Your task to perform on an android device: change your default location settings in chrome Image 0: 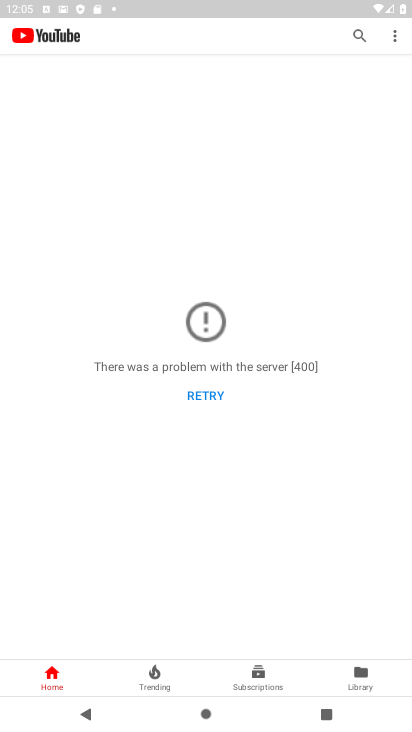
Step 0: press home button
Your task to perform on an android device: change your default location settings in chrome Image 1: 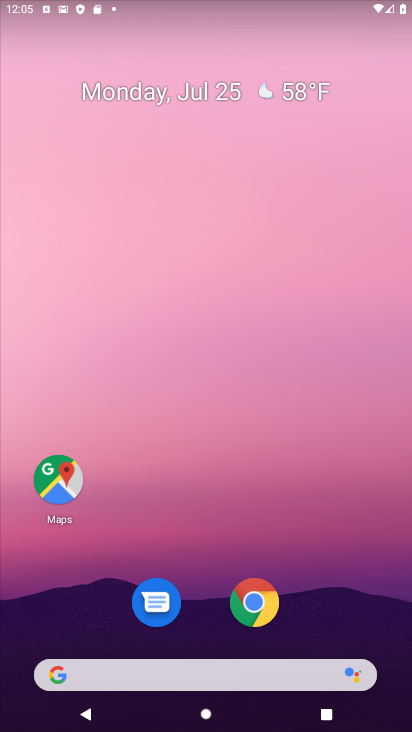
Step 1: click (265, 600)
Your task to perform on an android device: change your default location settings in chrome Image 2: 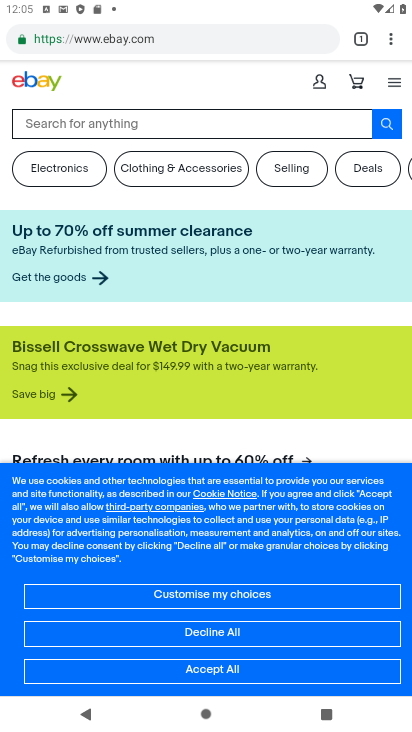
Step 2: click (395, 35)
Your task to perform on an android device: change your default location settings in chrome Image 3: 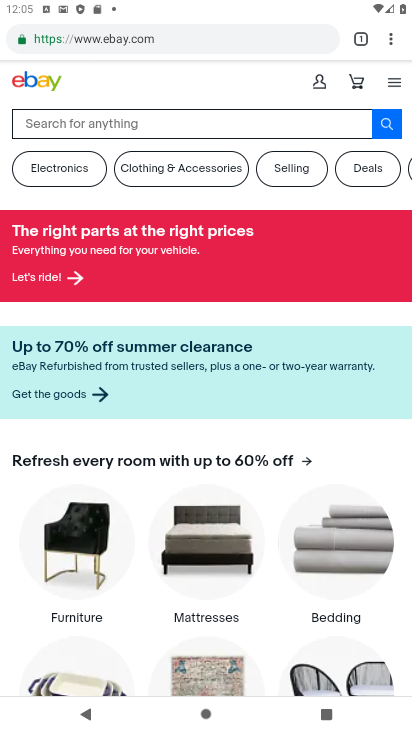
Step 3: click (391, 33)
Your task to perform on an android device: change your default location settings in chrome Image 4: 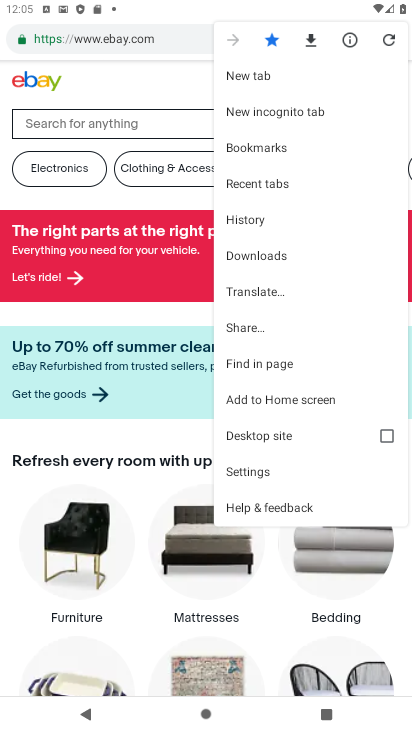
Step 4: click (273, 467)
Your task to perform on an android device: change your default location settings in chrome Image 5: 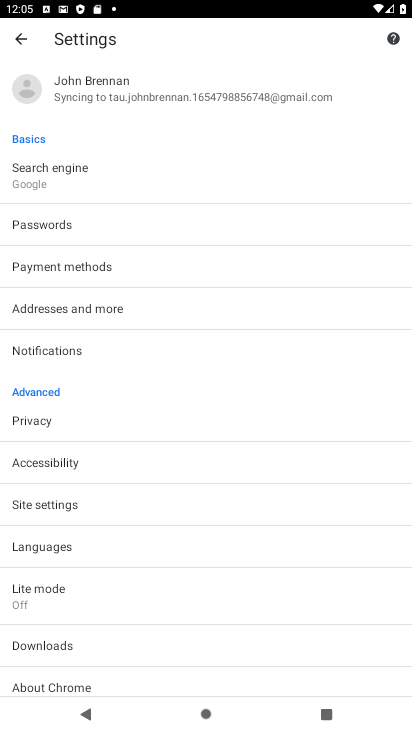
Step 5: drag from (148, 552) to (193, 318)
Your task to perform on an android device: change your default location settings in chrome Image 6: 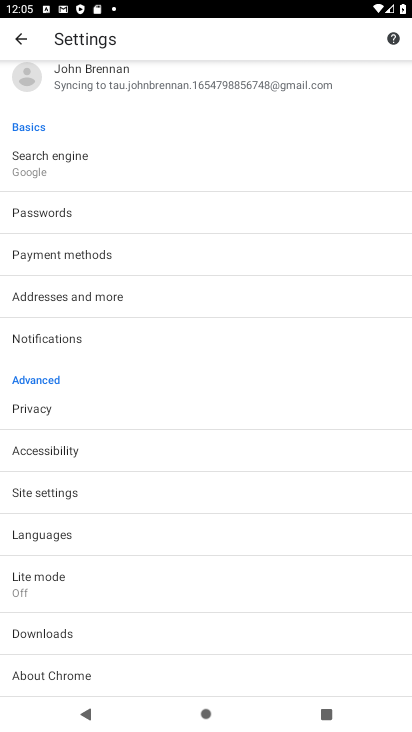
Step 6: click (80, 488)
Your task to perform on an android device: change your default location settings in chrome Image 7: 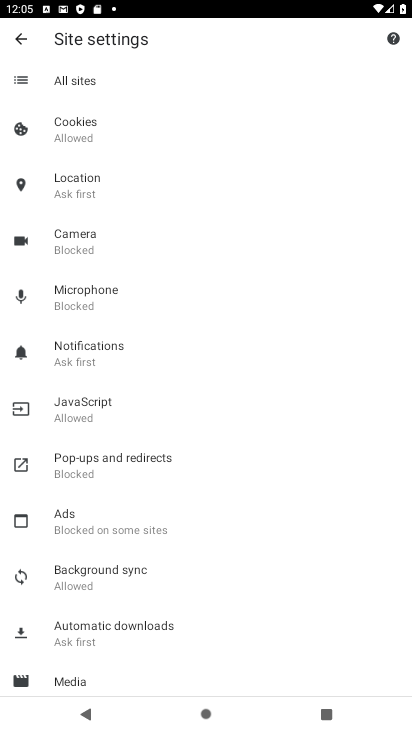
Step 7: click (99, 197)
Your task to perform on an android device: change your default location settings in chrome Image 8: 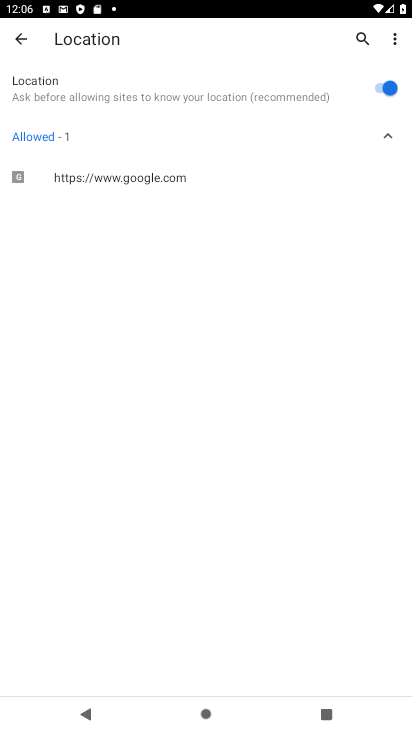
Step 8: click (374, 90)
Your task to perform on an android device: change your default location settings in chrome Image 9: 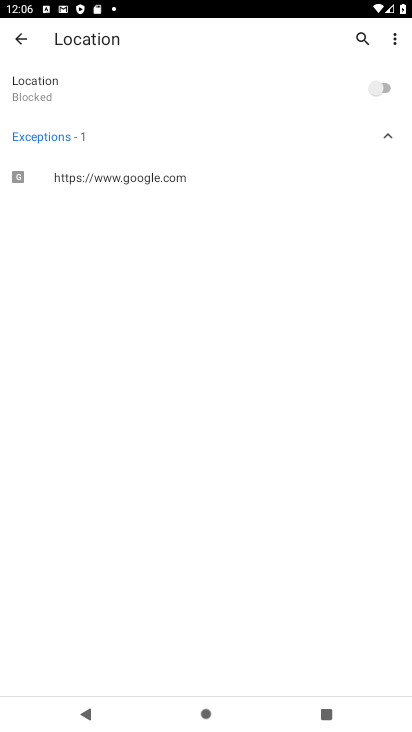
Step 9: task complete